Your task to perform on an android device: Open the Play Movies app and select the watchlist tab. Image 0: 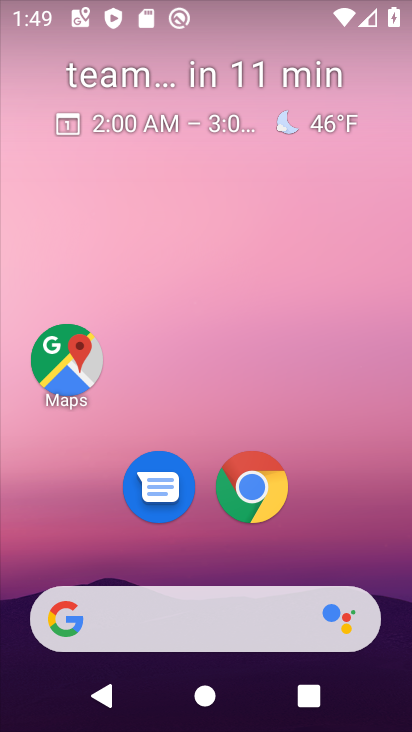
Step 0: drag from (361, 439) to (218, 68)
Your task to perform on an android device: Open the Play Movies app and select the watchlist tab. Image 1: 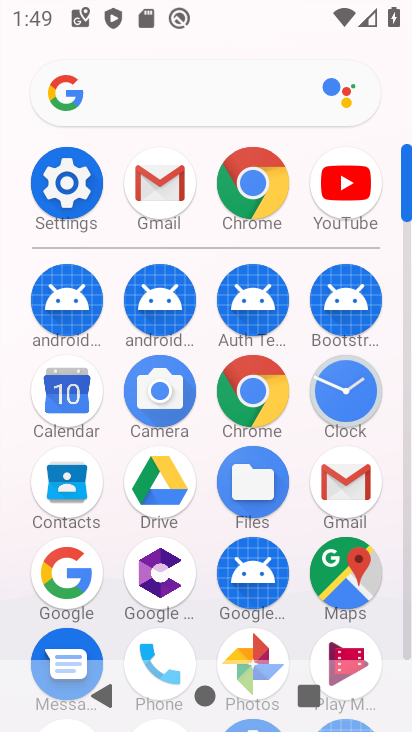
Step 1: click (346, 645)
Your task to perform on an android device: Open the Play Movies app and select the watchlist tab. Image 2: 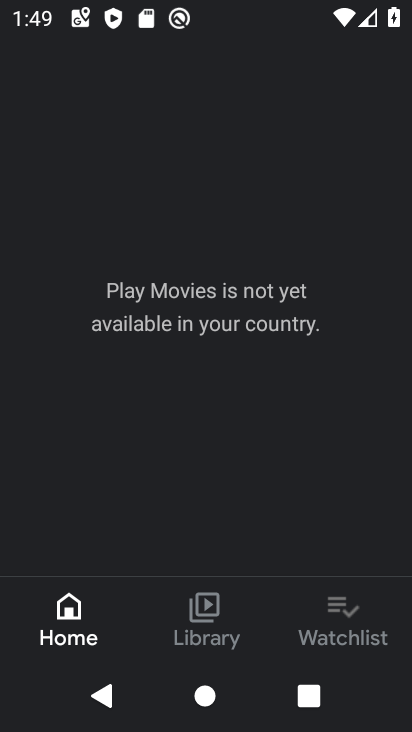
Step 2: click (337, 631)
Your task to perform on an android device: Open the Play Movies app and select the watchlist tab. Image 3: 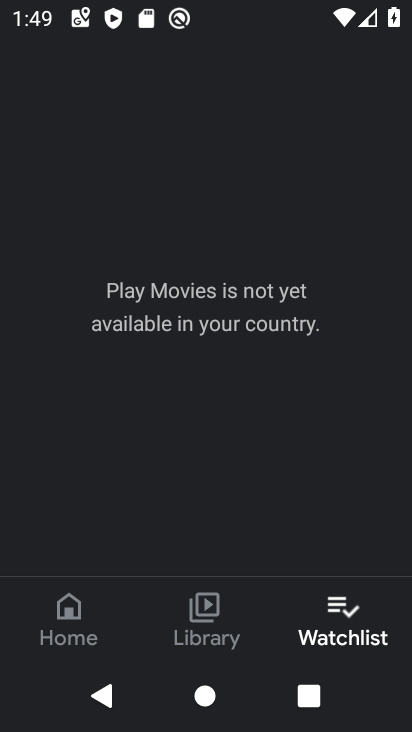
Step 3: task complete